Your task to perform on an android device: turn on notifications settings in the gmail app Image 0: 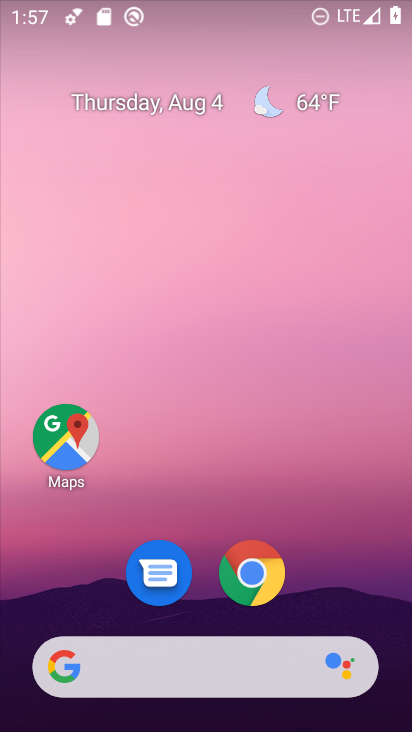
Step 0: drag from (344, 530) to (364, 123)
Your task to perform on an android device: turn on notifications settings in the gmail app Image 1: 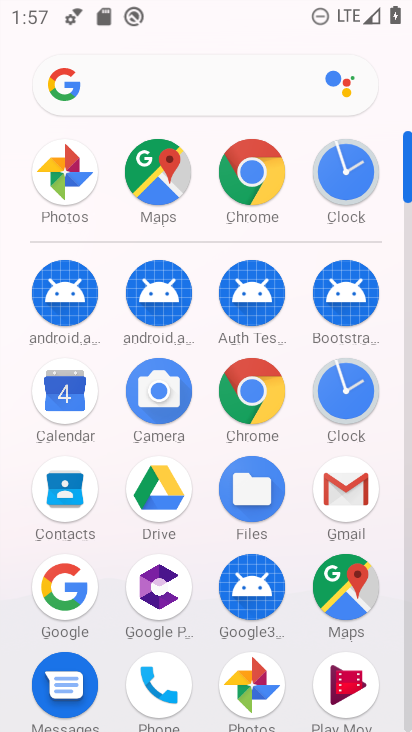
Step 1: click (347, 500)
Your task to perform on an android device: turn on notifications settings in the gmail app Image 2: 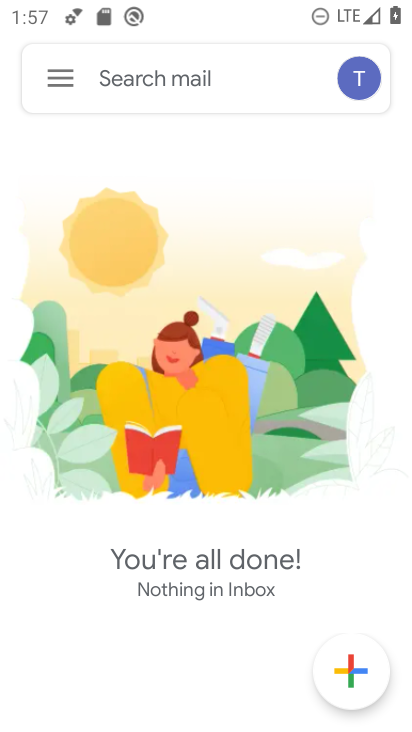
Step 2: click (66, 80)
Your task to perform on an android device: turn on notifications settings in the gmail app Image 3: 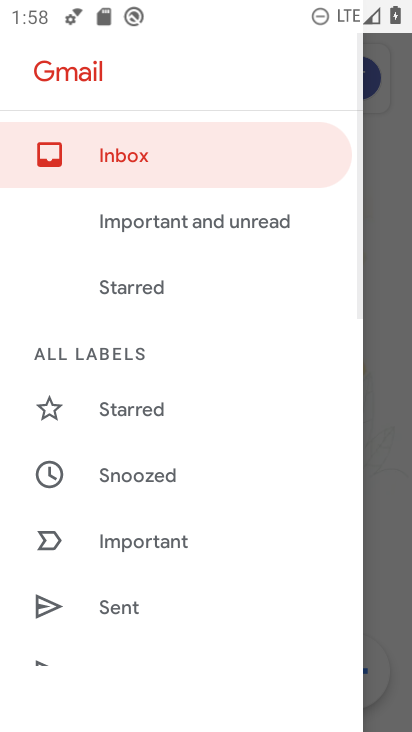
Step 3: click (210, 183)
Your task to perform on an android device: turn on notifications settings in the gmail app Image 4: 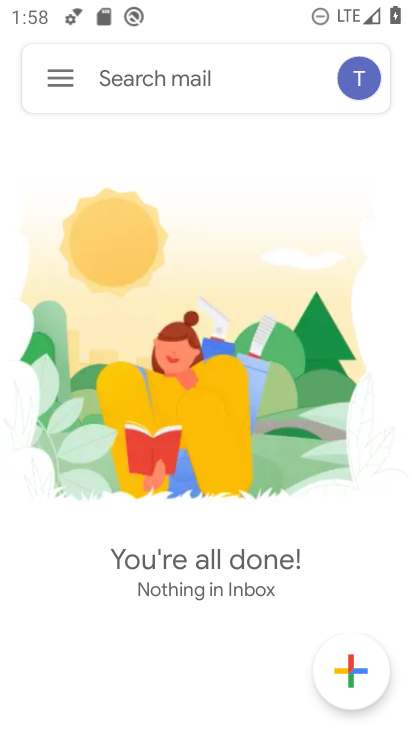
Step 4: click (47, 68)
Your task to perform on an android device: turn on notifications settings in the gmail app Image 5: 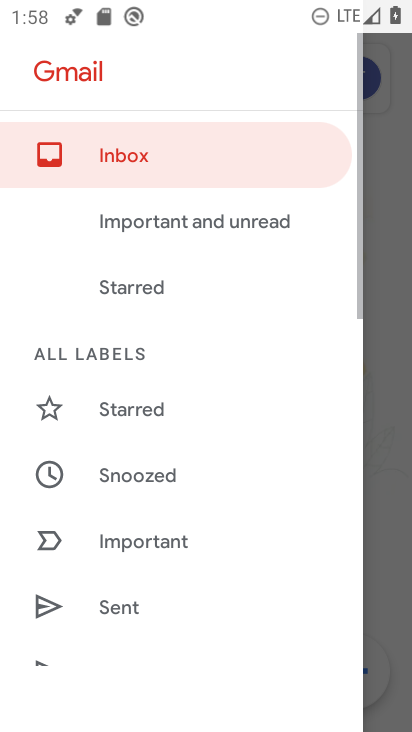
Step 5: drag from (173, 600) to (211, 164)
Your task to perform on an android device: turn on notifications settings in the gmail app Image 6: 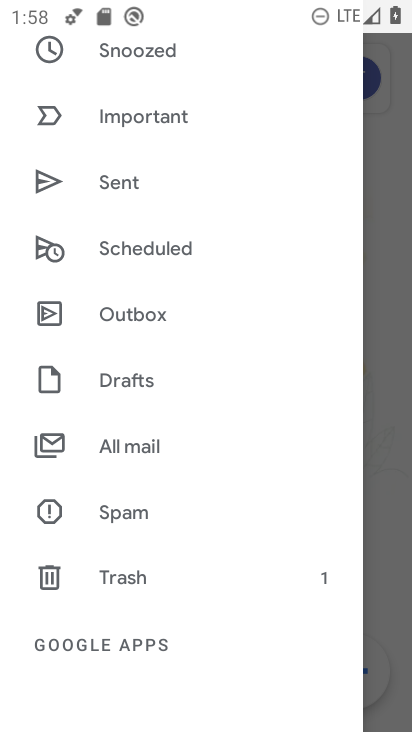
Step 6: drag from (189, 482) to (228, 266)
Your task to perform on an android device: turn on notifications settings in the gmail app Image 7: 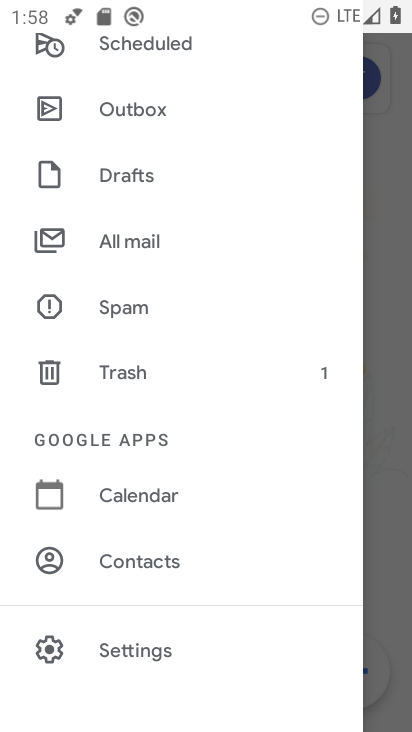
Step 7: click (148, 649)
Your task to perform on an android device: turn on notifications settings in the gmail app Image 8: 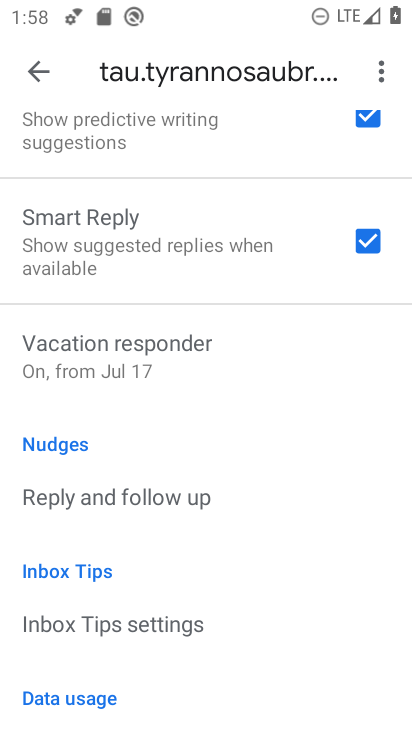
Step 8: drag from (265, 563) to (219, 654)
Your task to perform on an android device: turn on notifications settings in the gmail app Image 9: 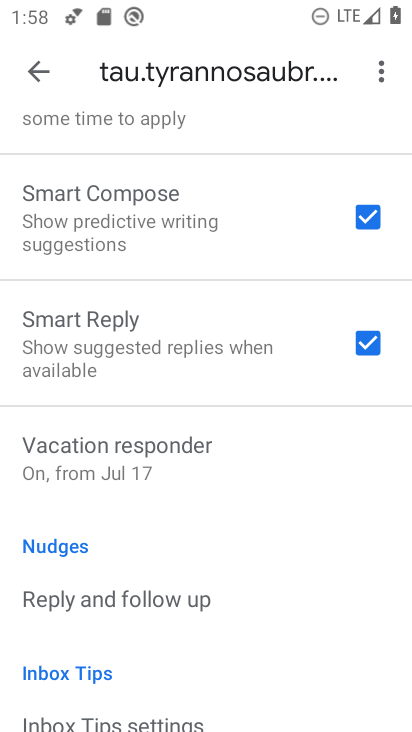
Step 9: drag from (270, 152) to (213, 610)
Your task to perform on an android device: turn on notifications settings in the gmail app Image 10: 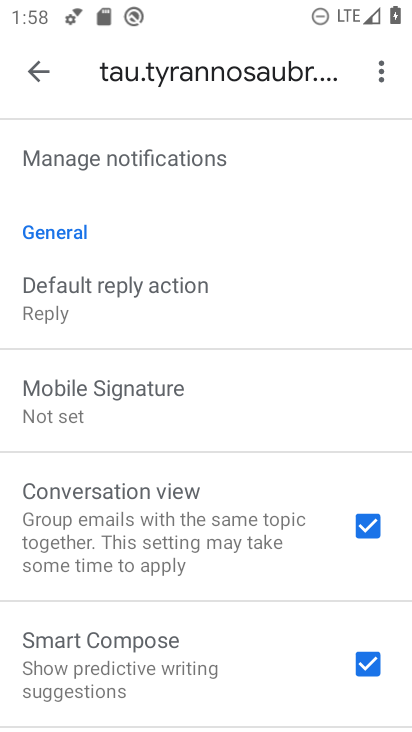
Step 10: drag from (280, 297) to (246, 519)
Your task to perform on an android device: turn on notifications settings in the gmail app Image 11: 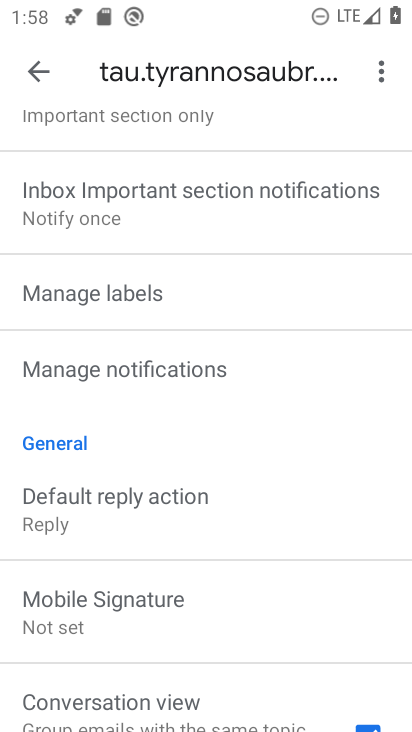
Step 11: click (197, 365)
Your task to perform on an android device: turn on notifications settings in the gmail app Image 12: 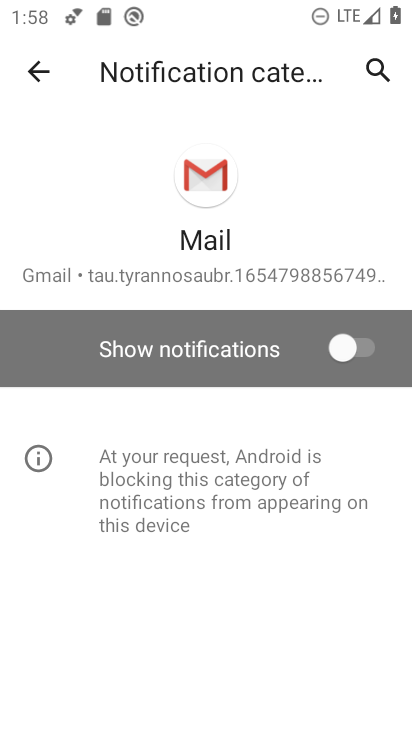
Step 12: click (301, 357)
Your task to perform on an android device: turn on notifications settings in the gmail app Image 13: 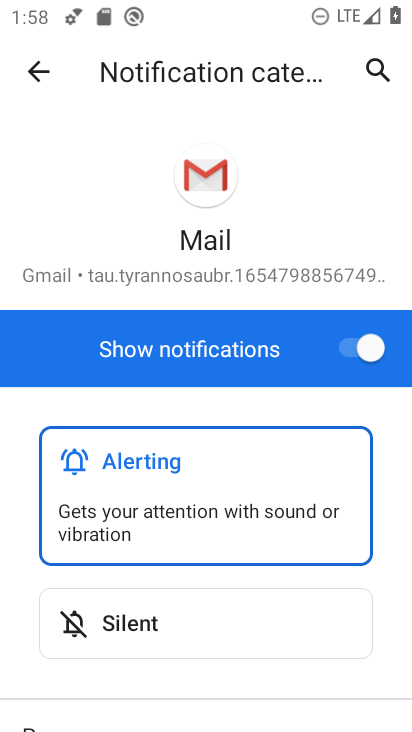
Step 13: task complete